Your task to perform on an android device: Search for Mexican restaurants on Maps Image 0: 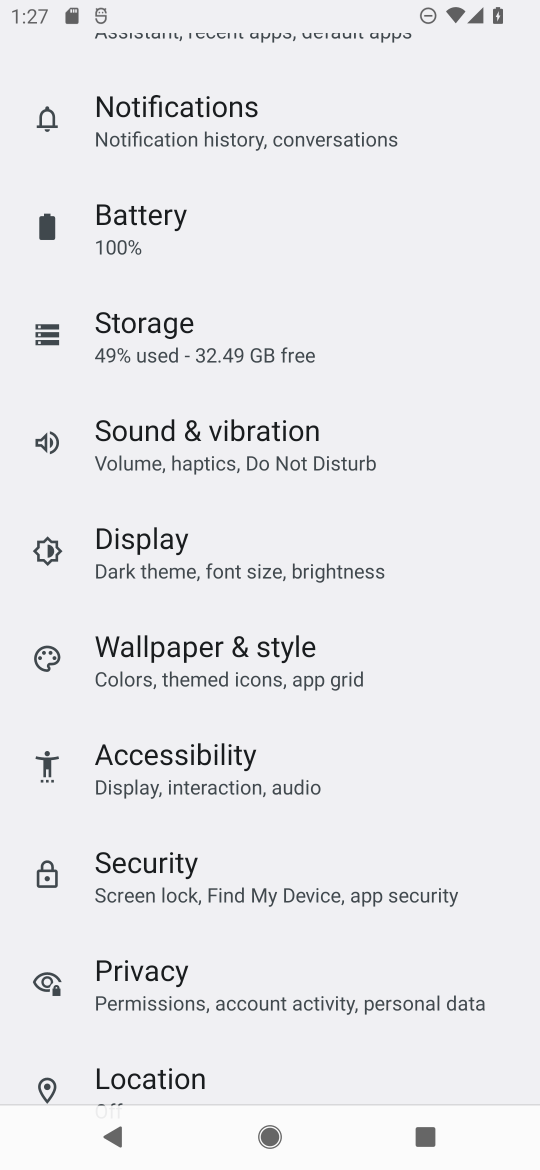
Step 0: press home button
Your task to perform on an android device: Search for Mexican restaurants on Maps Image 1: 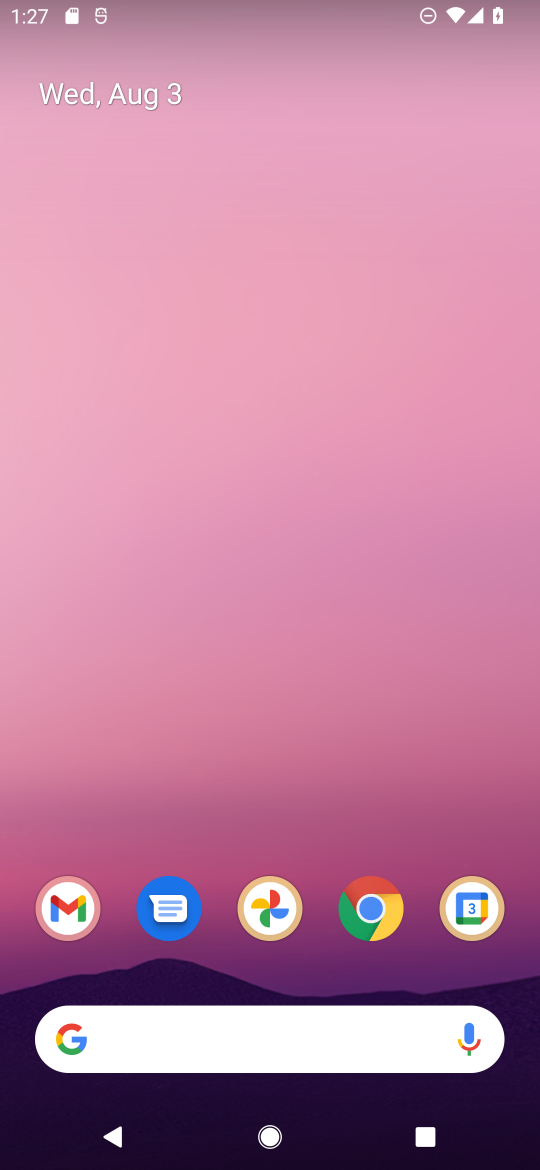
Step 1: drag from (256, 792) to (18, 9)
Your task to perform on an android device: Search for Mexican restaurants on Maps Image 2: 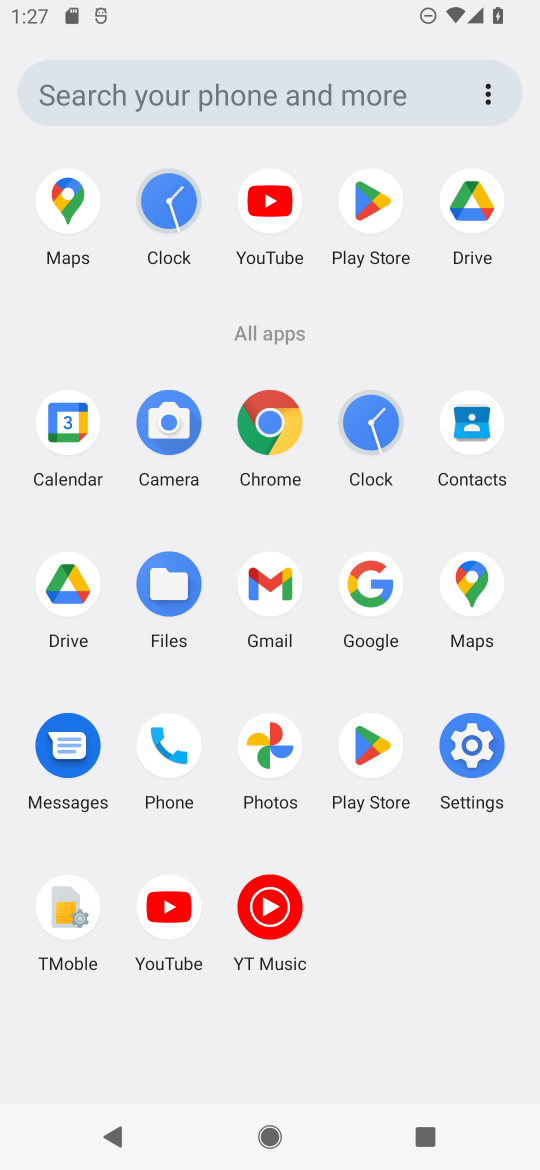
Step 2: click (462, 597)
Your task to perform on an android device: Search for Mexican restaurants on Maps Image 3: 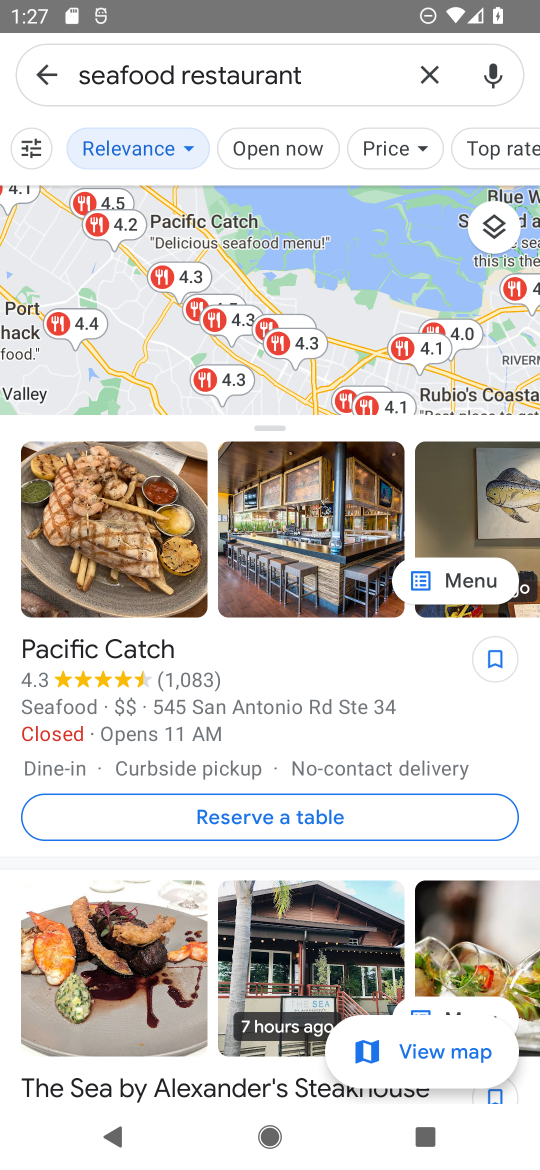
Step 3: click (443, 70)
Your task to perform on an android device: Search for Mexican restaurants on Maps Image 4: 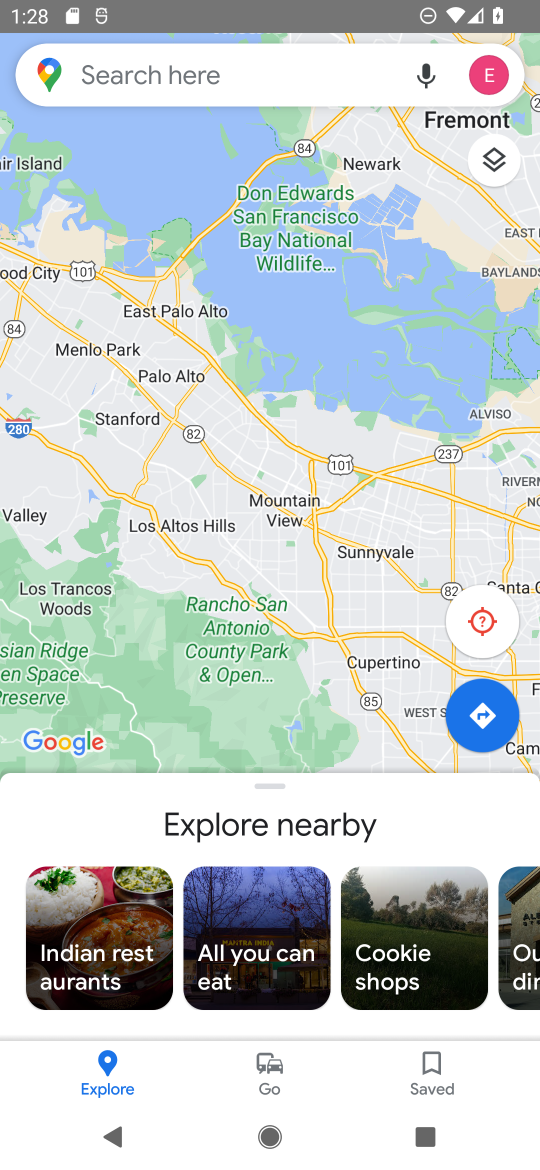
Step 4: click (226, 88)
Your task to perform on an android device: Search for Mexican restaurants on Maps Image 5: 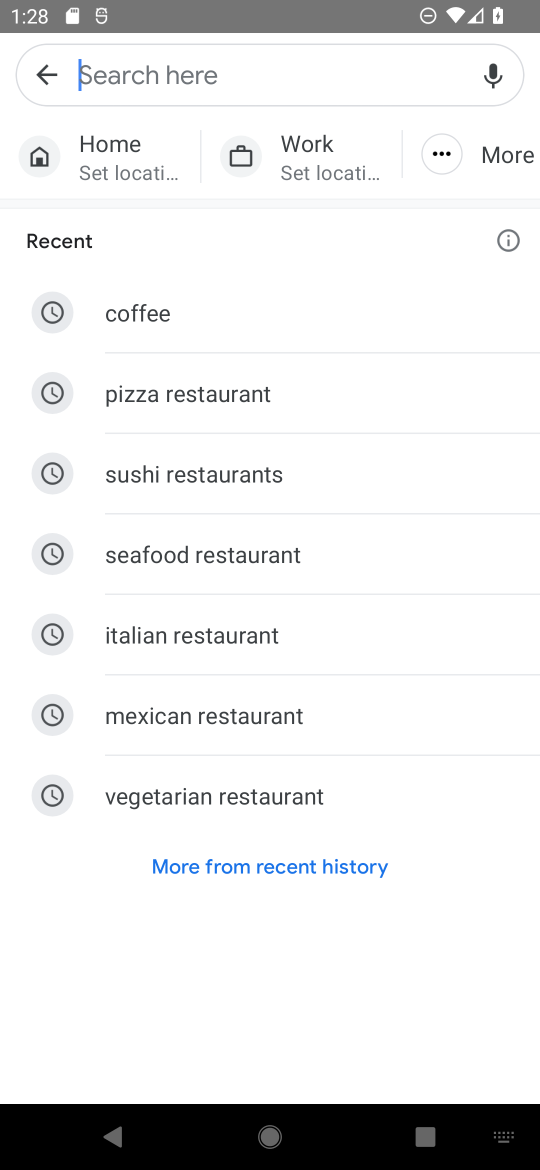
Step 5: type "Mexican restaurants"
Your task to perform on an android device: Search for Mexican restaurants on Maps Image 6: 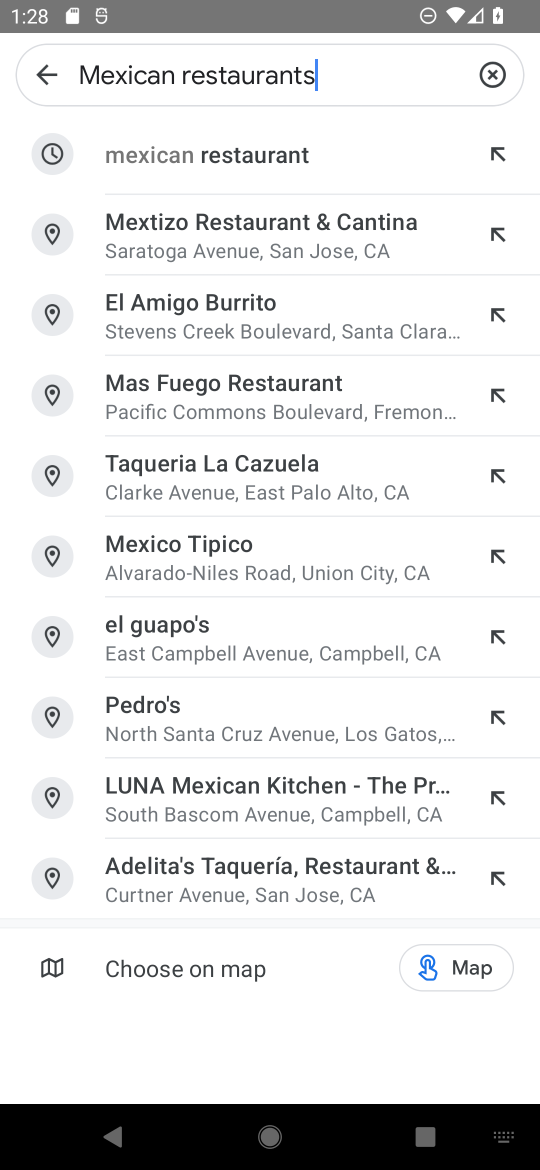
Step 6: click (256, 155)
Your task to perform on an android device: Search for Mexican restaurants on Maps Image 7: 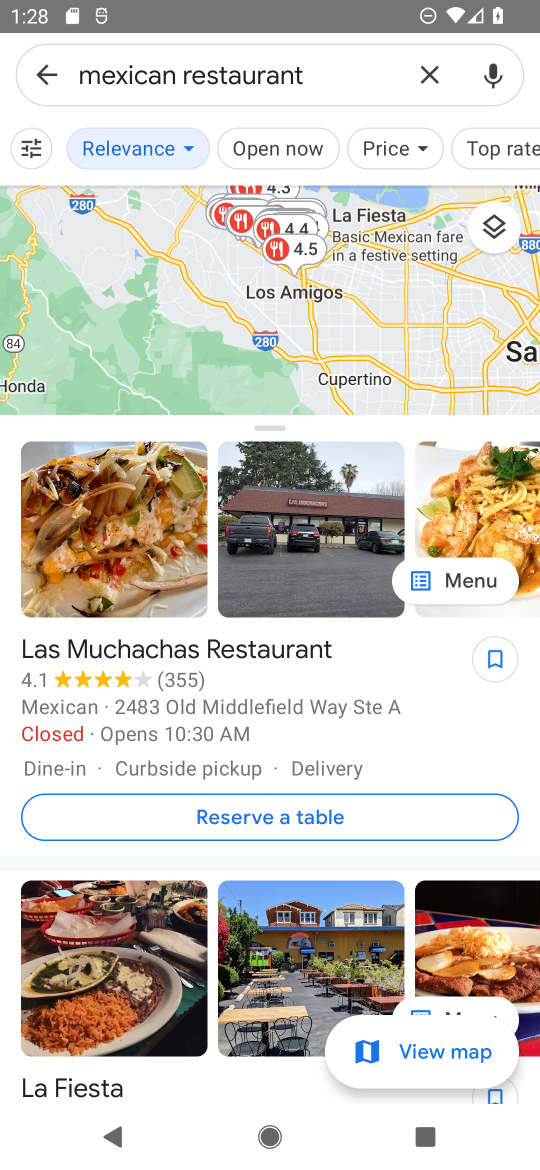
Step 7: task complete